Your task to perform on an android device: Open Google Chrome and click the shortcut for Amazon.com Image 0: 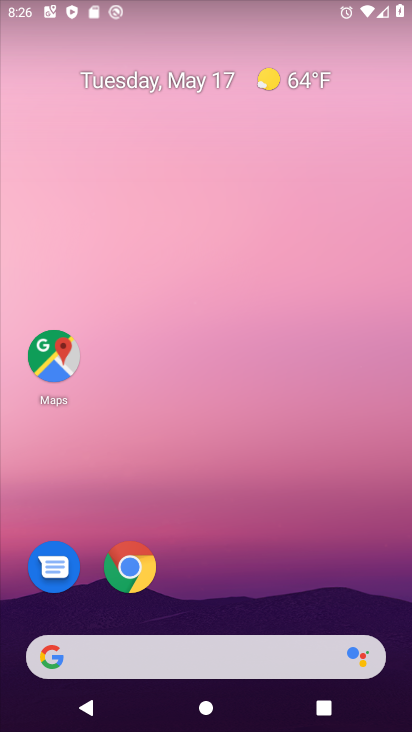
Step 0: drag from (345, 612) to (214, 7)
Your task to perform on an android device: Open Google Chrome and click the shortcut for Amazon.com Image 1: 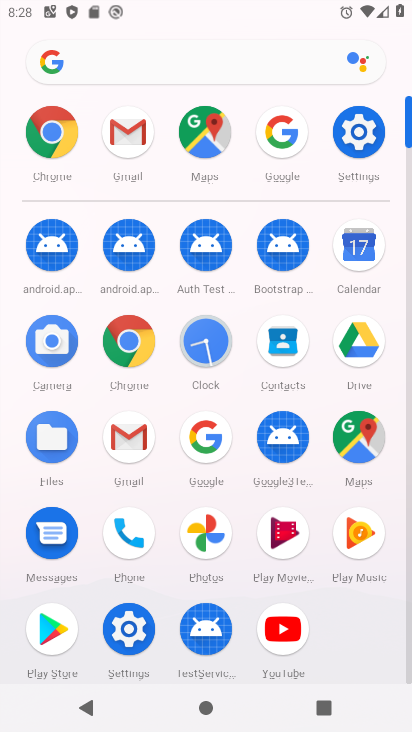
Step 1: click (146, 337)
Your task to perform on an android device: Open Google Chrome and click the shortcut for Amazon.com Image 2: 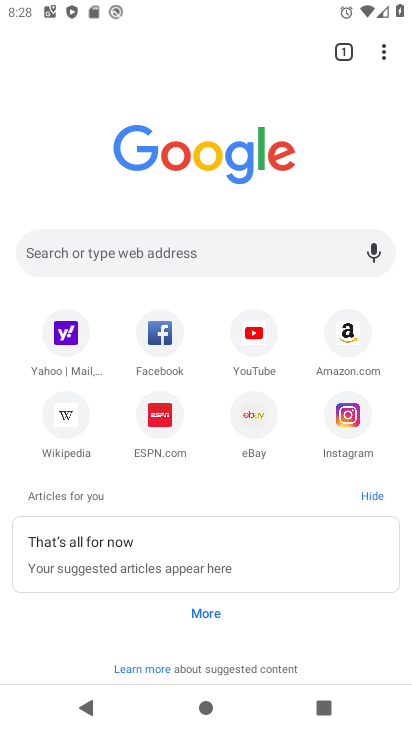
Step 2: click (340, 345)
Your task to perform on an android device: Open Google Chrome and click the shortcut for Amazon.com Image 3: 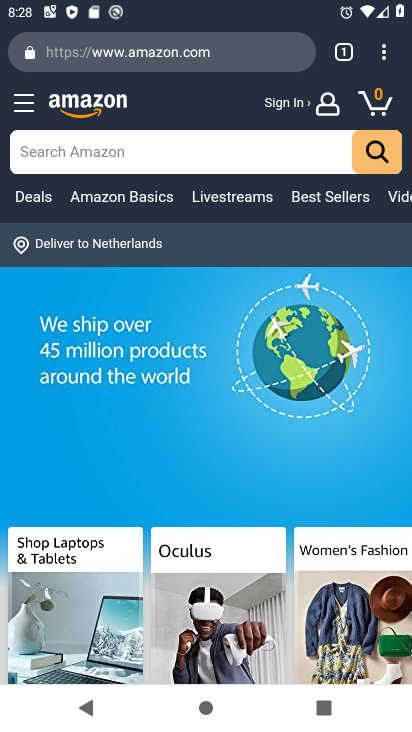
Step 3: task complete